Your task to perform on an android device: Search for Italian restaurants on Maps Image 0: 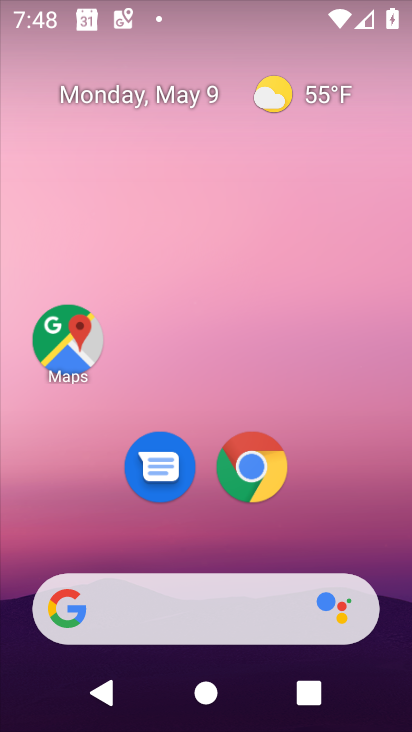
Step 0: click (70, 343)
Your task to perform on an android device: Search for Italian restaurants on Maps Image 1: 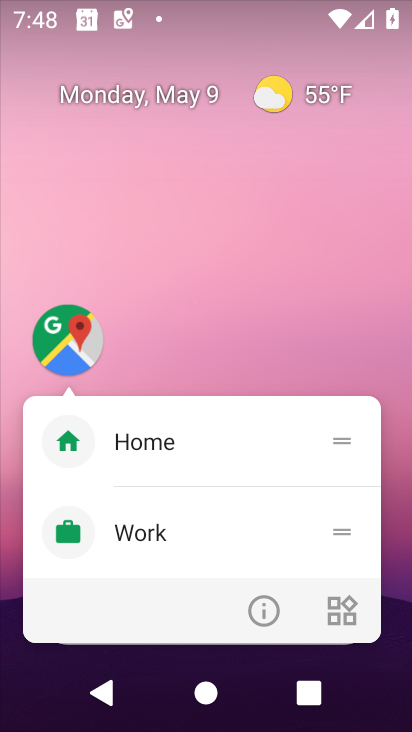
Step 1: click (69, 343)
Your task to perform on an android device: Search for Italian restaurants on Maps Image 2: 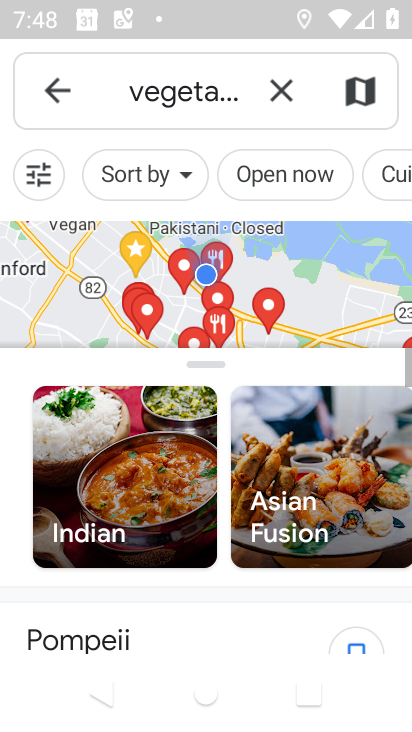
Step 2: click (291, 101)
Your task to perform on an android device: Search for Italian restaurants on Maps Image 3: 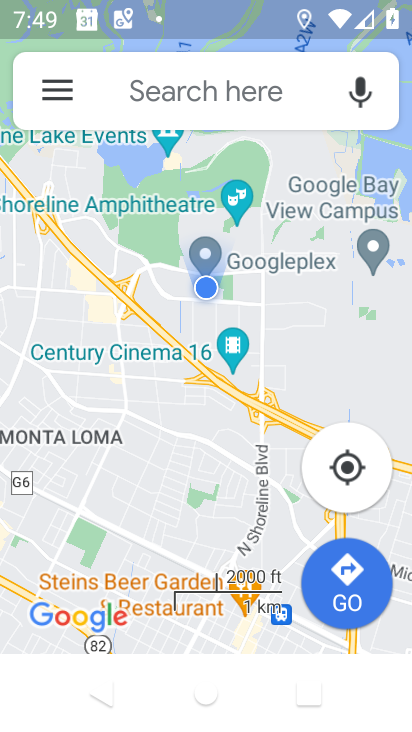
Step 3: click (155, 95)
Your task to perform on an android device: Search for Italian restaurants on Maps Image 4: 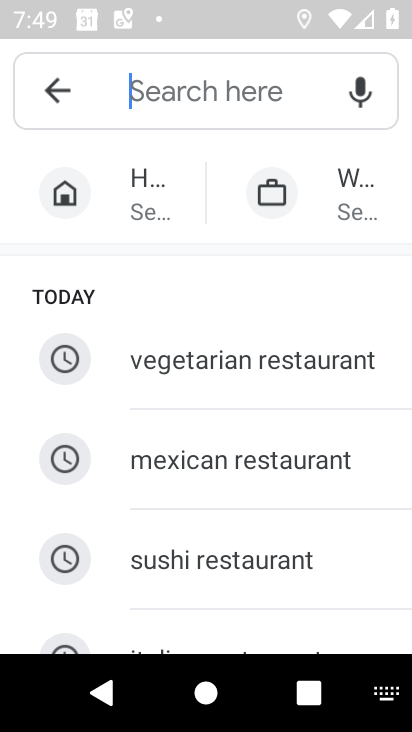
Step 4: type "italian restaurant "
Your task to perform on an android device: Search for Italian restaurants on Maps Image 5: 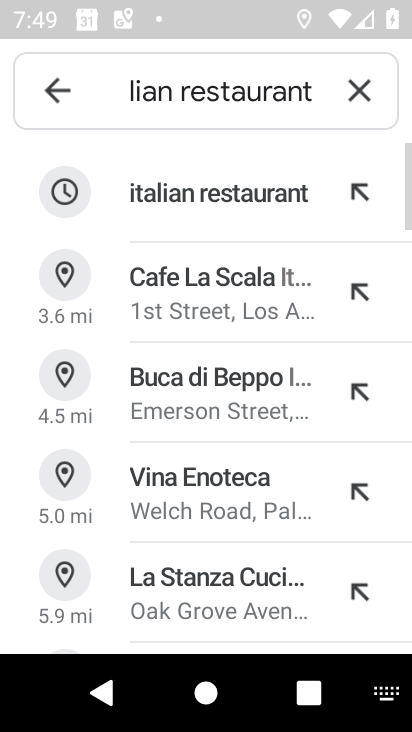
Step 5: click (220, 207)
Your task to perform on an android device: Search for Italian restaurants on Maps Image 6: 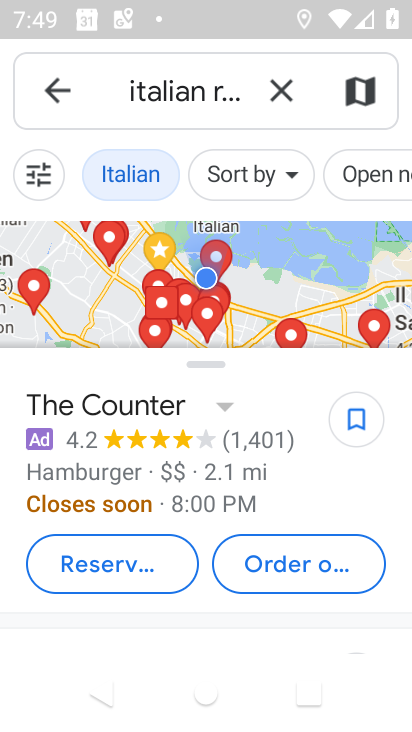
Step 6: task complete